Your task to perform on an android device: turn pop-ups on in chrome Image 0: 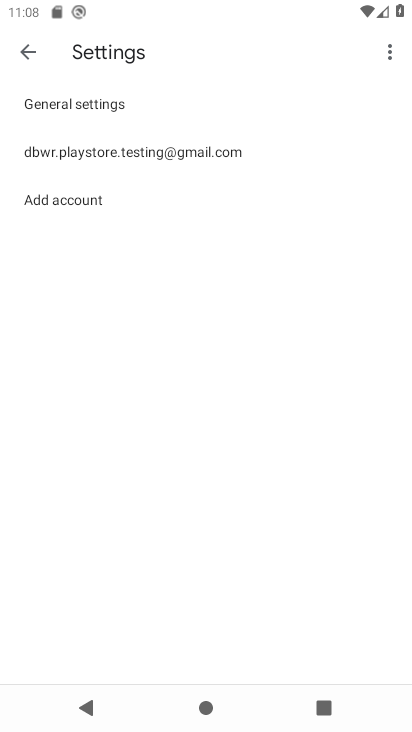
Step 0: press home button
Your task to perform on an android device: turn pop-ups on in chrome Image 1: 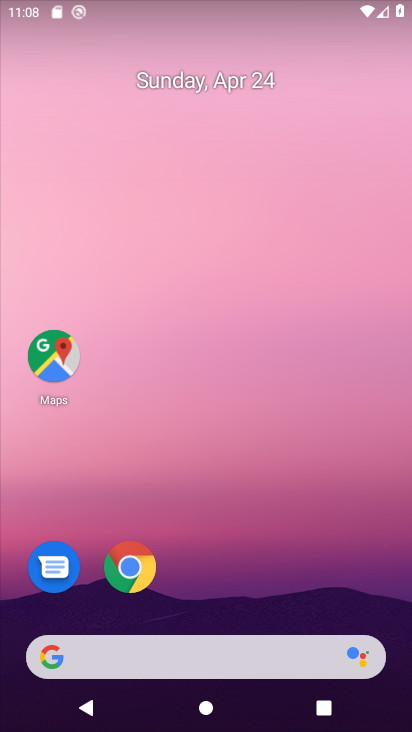
Step 1: click (137, 569)
Your task to perform on an android device: turn pop-ups on in chrome Image 2: 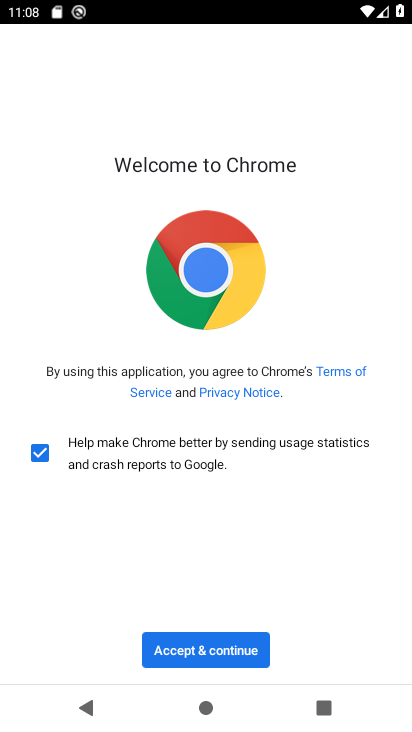
Step 2: click (204, 646)
Your task to perform on an android device: turn pop-ups on in chrome Image 3: 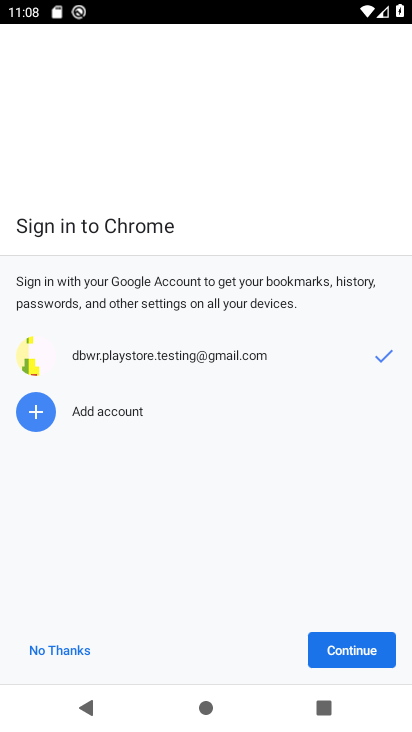
Step 3: click (355, 644)
Your task to perform on an android device: turn pop-ups on in chrome Image 4: 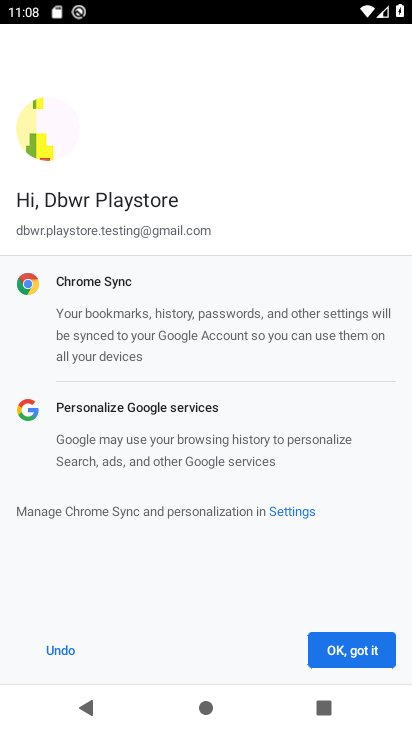
Step 4: click (355, 644)
Your task to perform on an android device: turn pop-ups on in chrome Image 5: 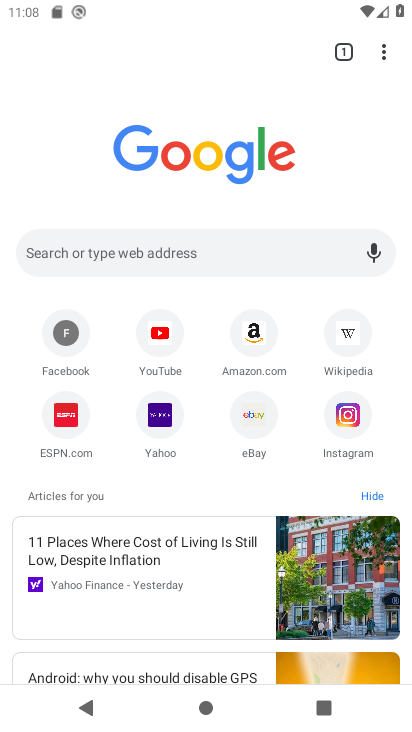
Step 5: click (385, 52)
Your task to perform on an android device: turn pop-ups on in chrome Image 6: 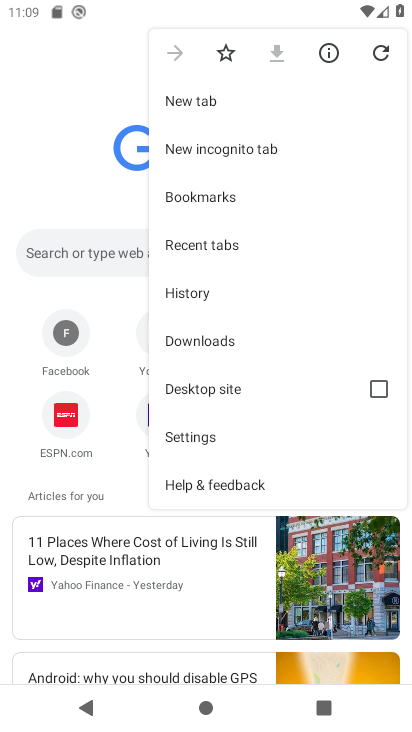
Step 6: drag from (308, 385) to (329, 180)
Your task to perform on an android device: turn pop-ups on in chrome Image 7: 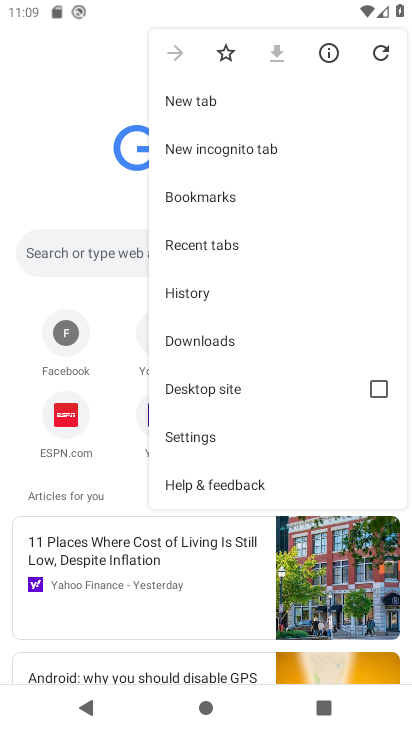
Step 7: click (237, 444)
Your task to perform on an android device: turn pop-ups on in chrome Image 8: 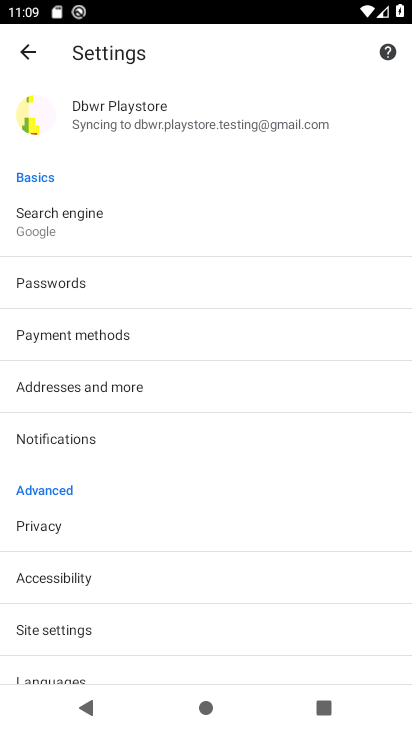
Step 8: drag from (199, 542) to (225, 324)
Your task to perform on an android device: turn pop-ups on in chrome Image 9: 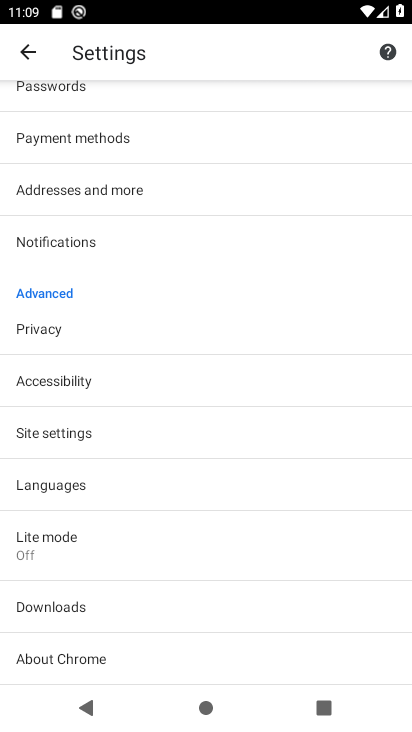
Step 9: click (140, 430)
Your task to perform on an android device: turn pop-ups on in chrome Image 10: 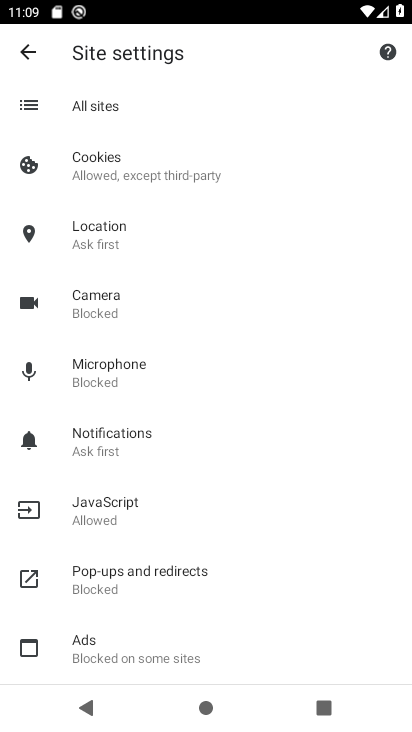
Step 10: click (161, 591)
Your task to perform on an android device: turn pop-ups on in chrome Image 11: 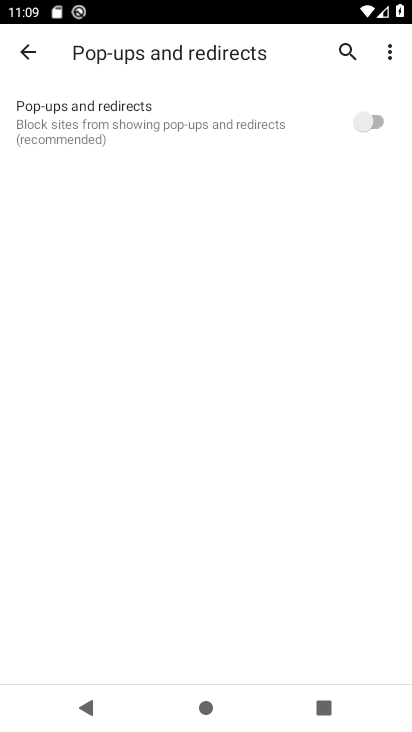
Step 11: click (371, 113)
Your task to perform on an android device: turn pop-ups on in chrome Image 12: 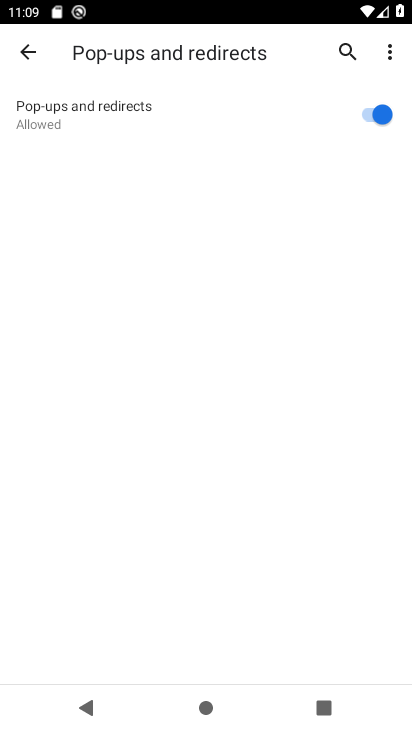
Step 12: task complete